Your task to perform on an android device: Open location settings Image 0: 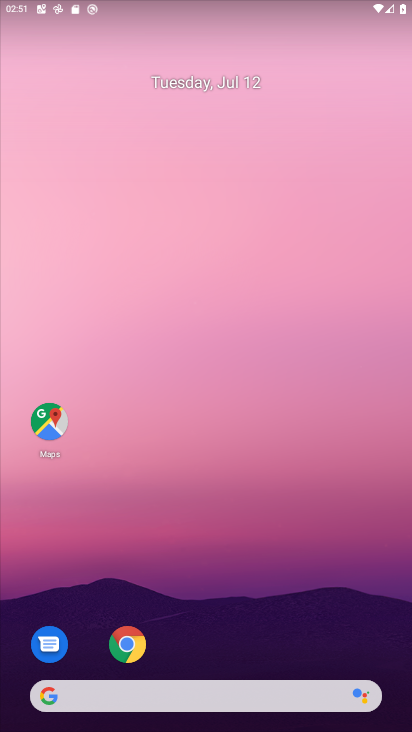
Step 0: drag from (209, 656) to (195, 203)
Your task to perform on an android device: Open location settings Image 1: 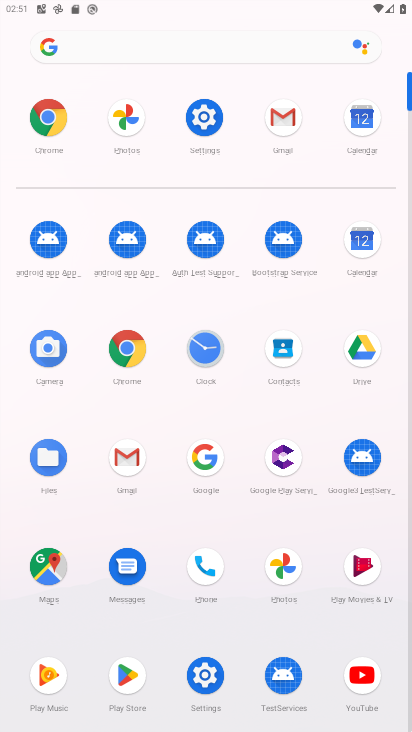
Step 1: click (184, 126)
Your task to perform on an android device: Open location settings Image 2: 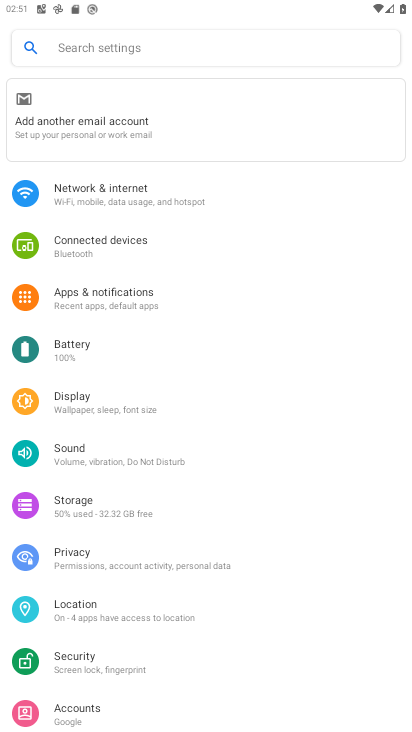
Step 2: click (82, 604)
Your task to perform on an android device: Open location settings Image 3: 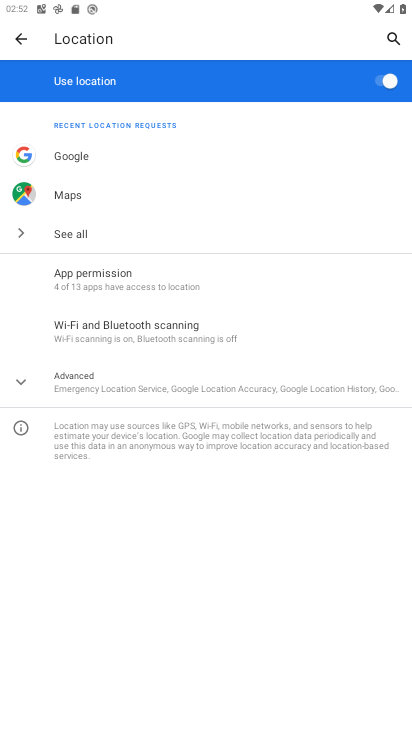
Step 3: click (77, 383)
Your task to perform on an android device: Open location settings Image 4: 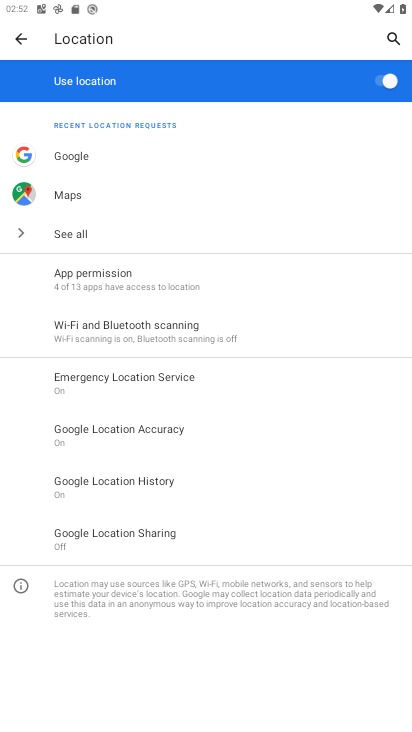
Step 4: task complete